Your task to perform on an android device: turn smart compose on in the gmail app Image 0: 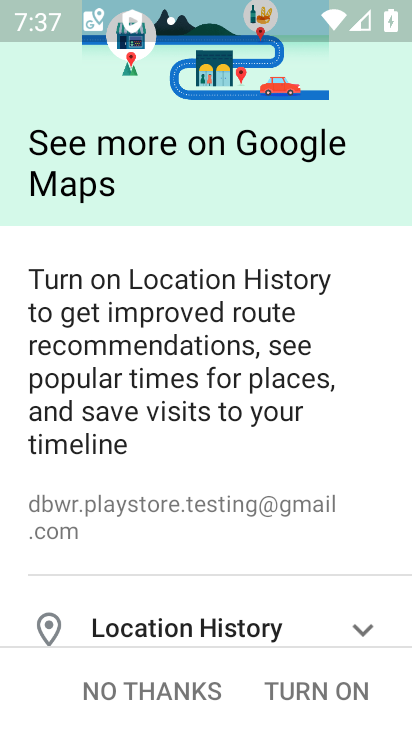
Step 0: press home button
Your task to perform on an android device: turn smart compose on in the gmail app Image 1: 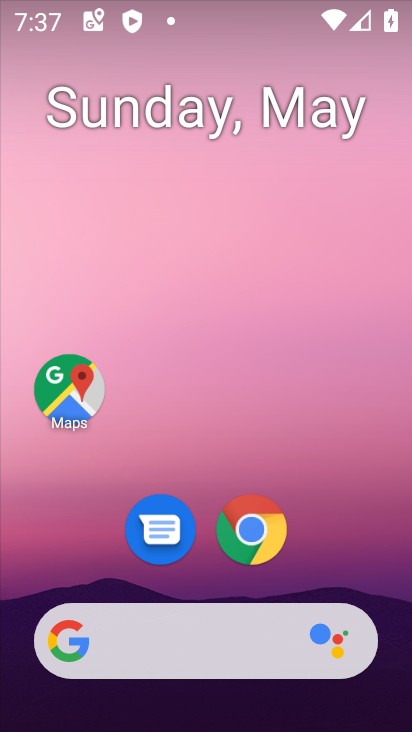
Step 1: drag from (377, 590) to (410, 518)
Your task to perform on an android device: turn smart compose on in the gmail app Image 2: 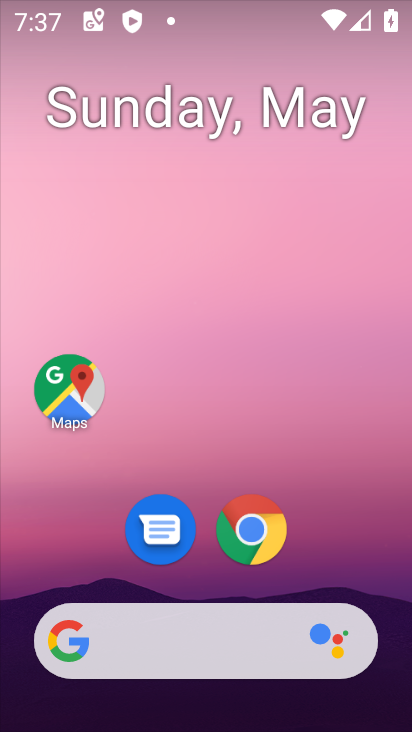
Step 2: drag from (328, 563) to (224, 11)
Your task to perform on an android device: turn smart compose on in the gmail app Image 3: 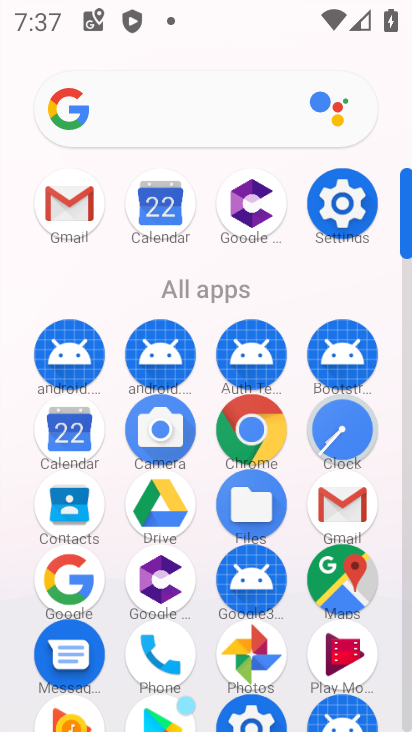
Step 3: click (73, 199)
Your task to perform on an android device: turn smart compose on in the gmail app Image 4: 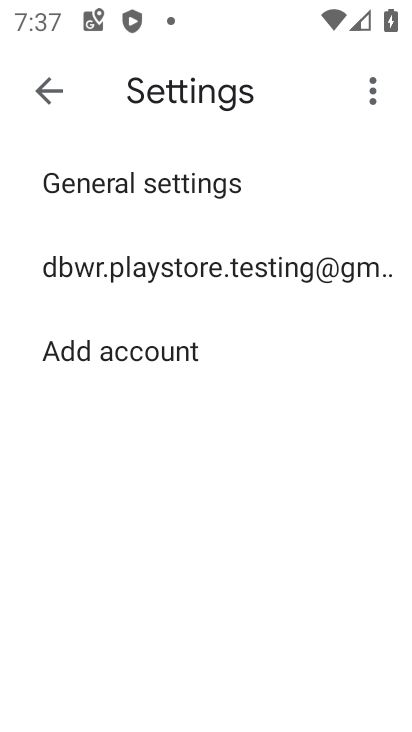
Step 4: click (104, 259)
Your task to perform on an android device: turn smart compose on in the gmail app Image 5: 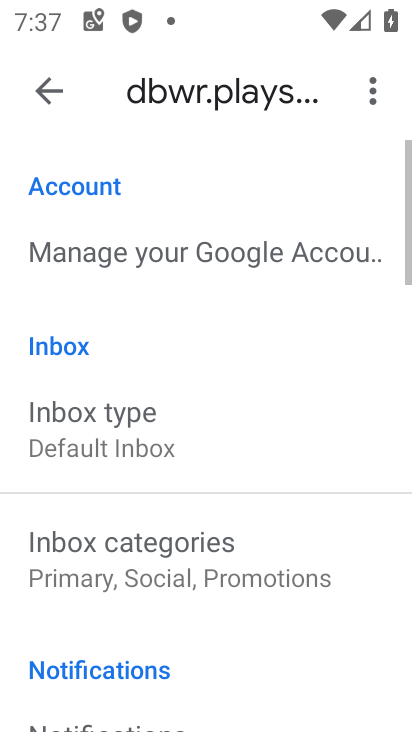
Step 5: task complete